Your task to perform on an android device: turn on javascript in the chrome app Image 0: 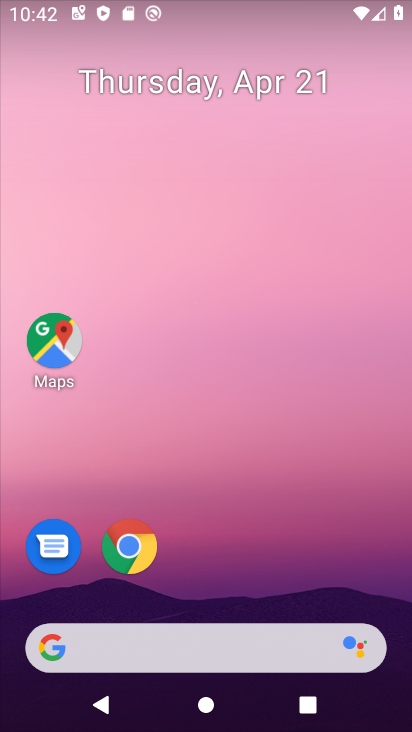
Step 0: drag from (192, 553) to (266, 78)
Your task to perform on an android device: turn on javascript in the chrome app Image 1: 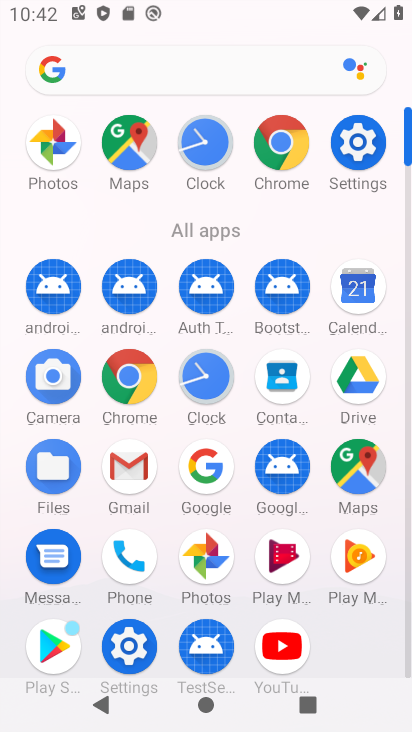
Step 1: click (138, 382)
Your task to perform on an android device: turn on javascript in the chrome app Image 2: 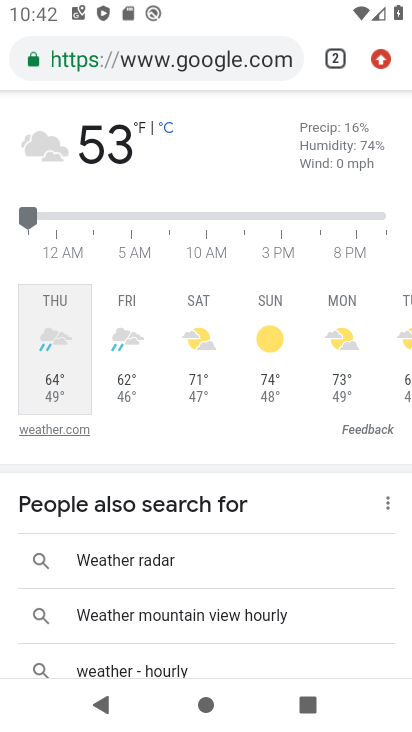
Step 2: drag from (401, 60) to (186, 555)
Your task to perform on an android device: turn on javascript in the chrome app Image 3: 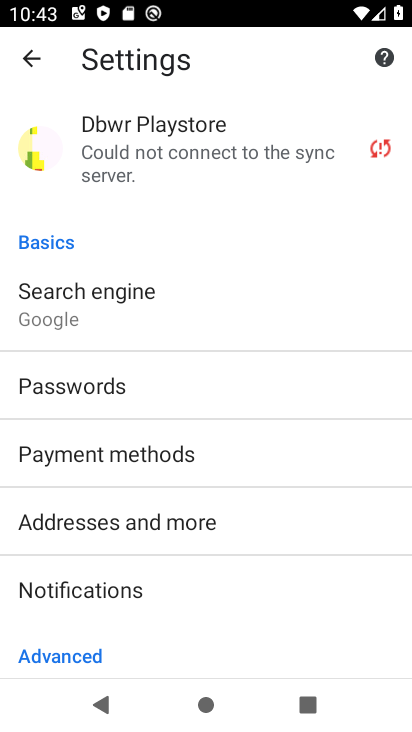
Step 3: drag from (124, 574) to (172, 67)
Your task to perform on an android device: turn on javascript in the chrome app Image 4: 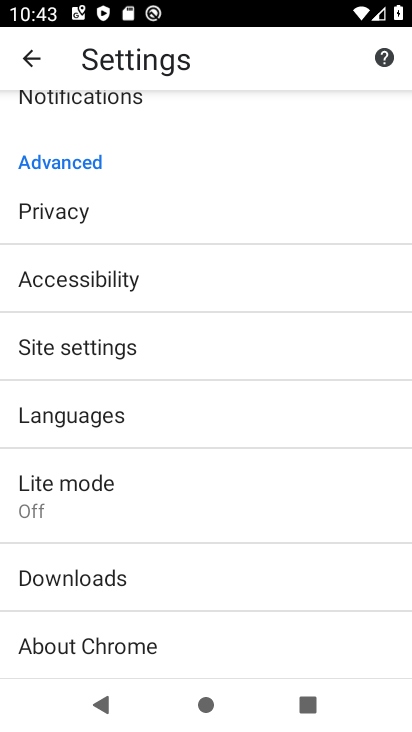
Step 4: drag from (180, 518) to (265, 182)
Your task to perform on an android device: turn on javascript in the chrome app Image 5: 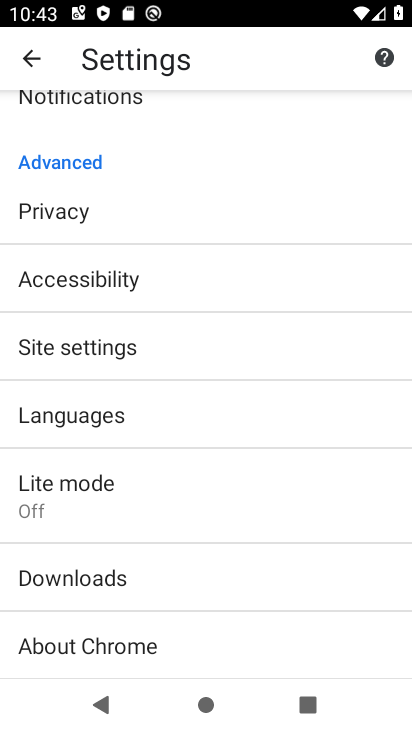
Step 5: click (119, 353)
Your task to perform on an android device: turn on javascript in the chrome app Image 6: 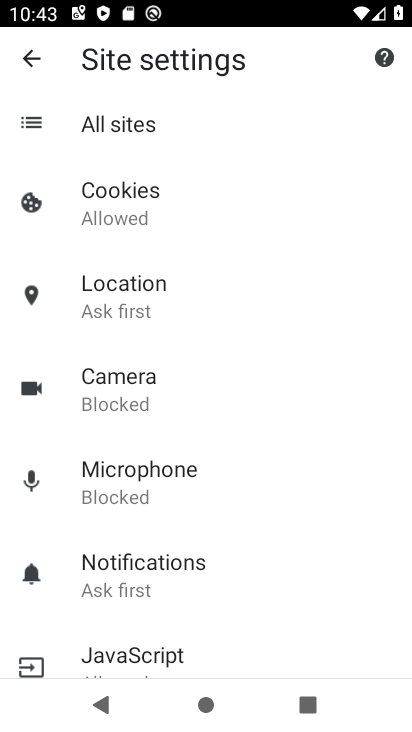
Step 6: drag from (178, 592) to (201, 304)
Your task to perform on an android device: turn on javascript in the chrome app Image 7: 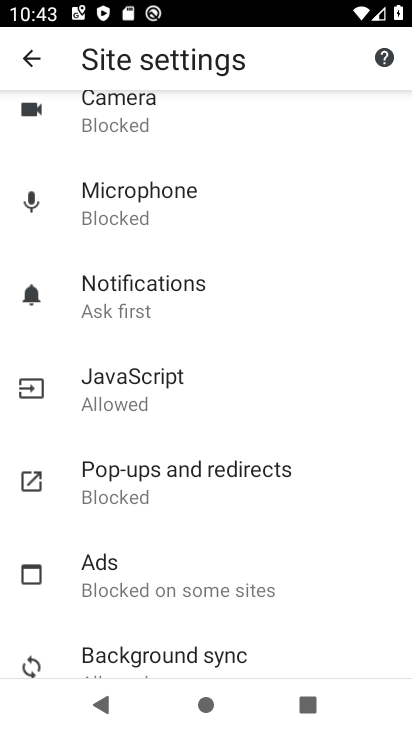
Step 7: click (134, 409)
Your task to perform on an android device: turn on javascript in the chrome app Image 8: 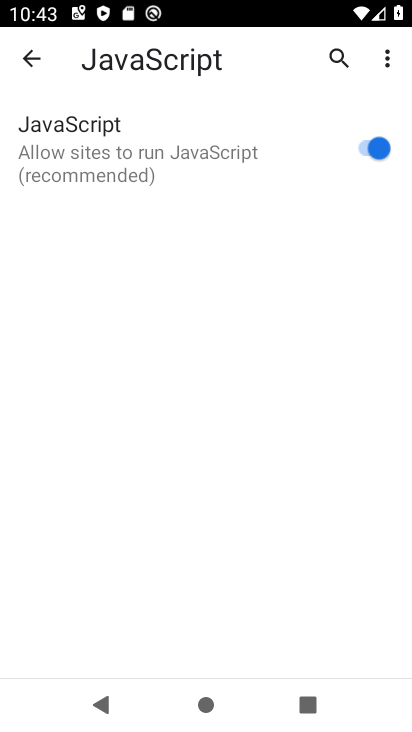
Step 8: task complete